Your task to perform on an android device: Search for Italian restaurants on Maps Image 0: 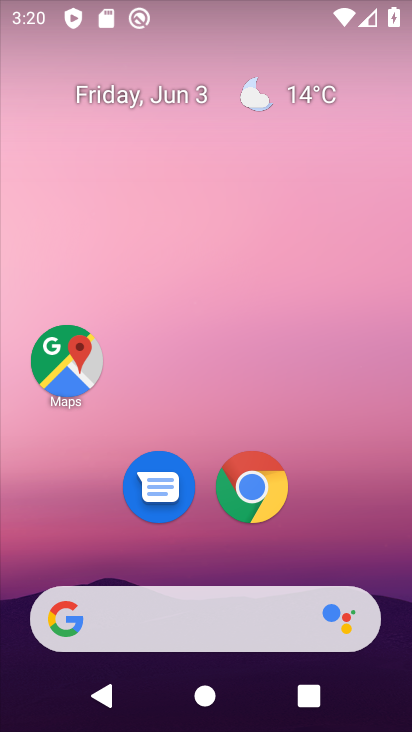
Step 0: click (62, 359)
Your task to perform on an android device: Search for Italian restaurants on Maps Image 1: 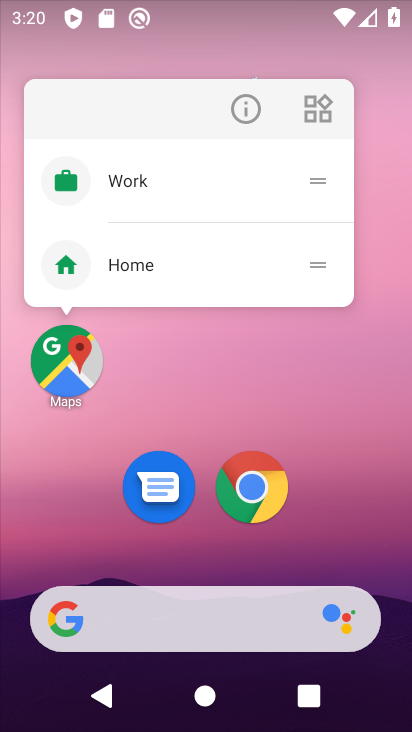
Step 1: click (76, 356)
Your task to perform on an android device: Search for Italian restaurants on Maps Image 2: 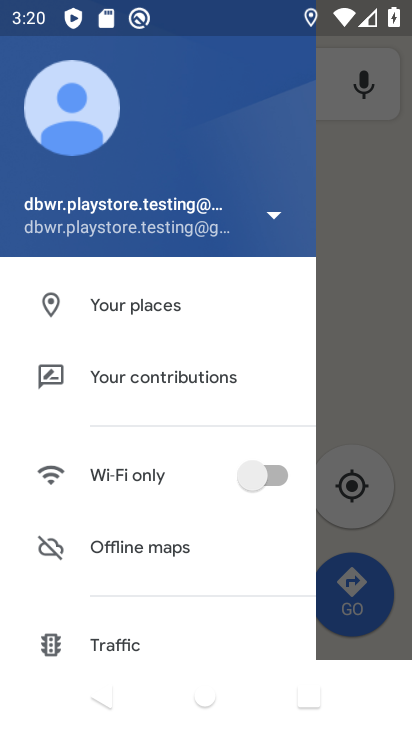
Step 2: click (373, 262)
Your task to perform on an android device: Search for Italian restaurants on Maps Image 3: 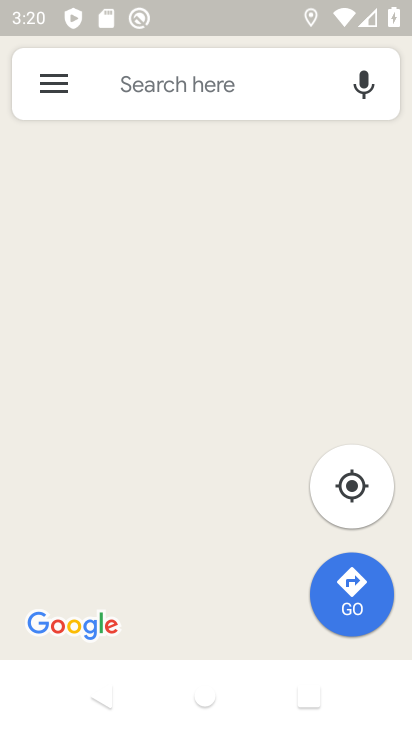
Step 3: click (188, 94)
Your task to perform on an android device: Search for Italian restaurants on Maps Image 4: 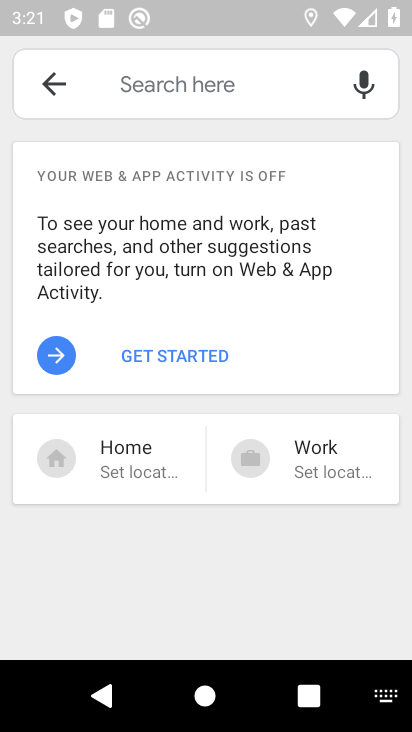
Step 4: type "italian restaurants"
Your task to perform on an android device: Search for Italian restaurants on Maps Image 5: 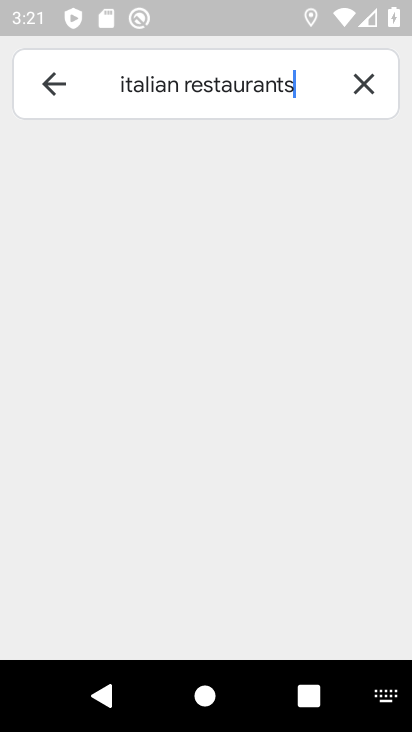
Step 5: click (250, 141)
Your task to perform on an android device: Search for Italian restaurants on Maps Image 6: 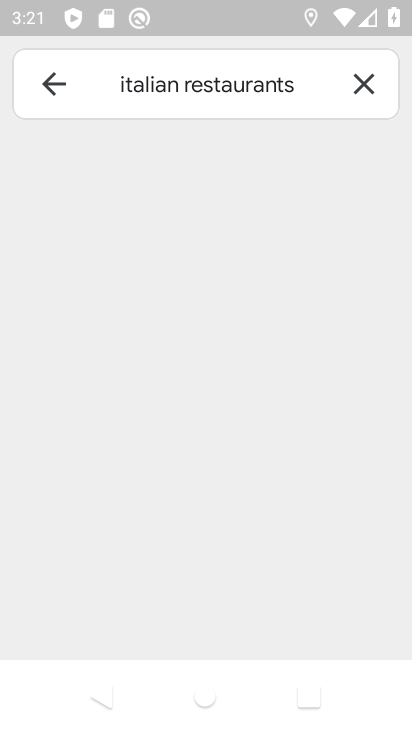
Step 6: task complete